Your task to perform on an android device: choose inbox layout in the gmail app Image 0: 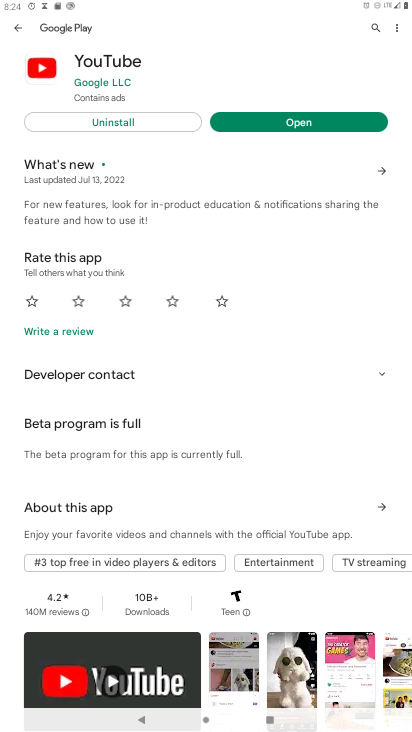
Step 0: press home button
Your task to perform on an android device: choose inbox layout in the gmail app Image 1: 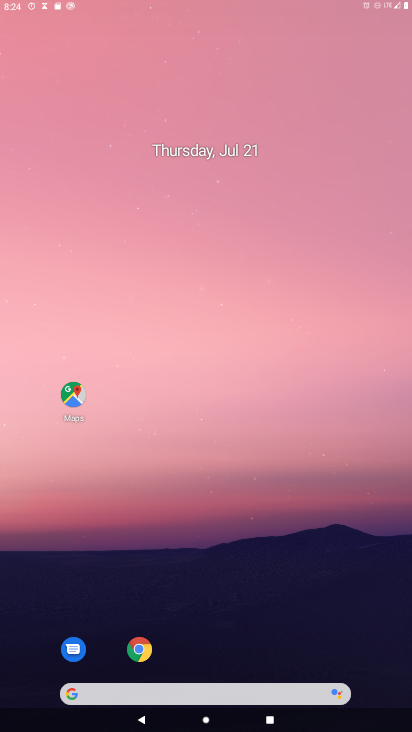
Step 1: drag from (399, 677) to (211, 53)
Your task to perform on an android device: choose inbox layout in the gmail app Image 2: 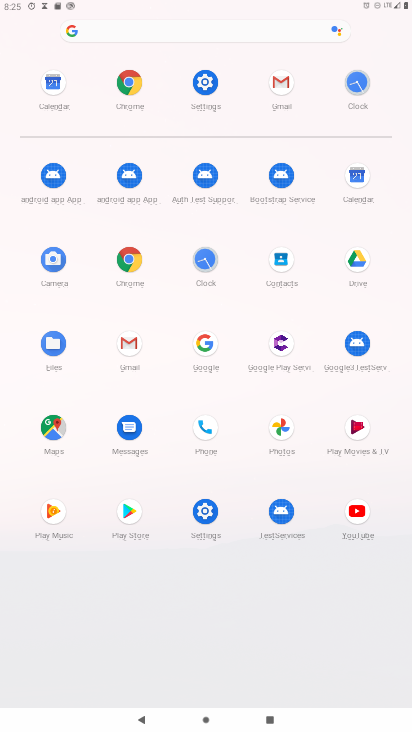
Step 2: click (128, 347)
Your task to perform on an android device: choose inbox layout in the gmail app Image 3: 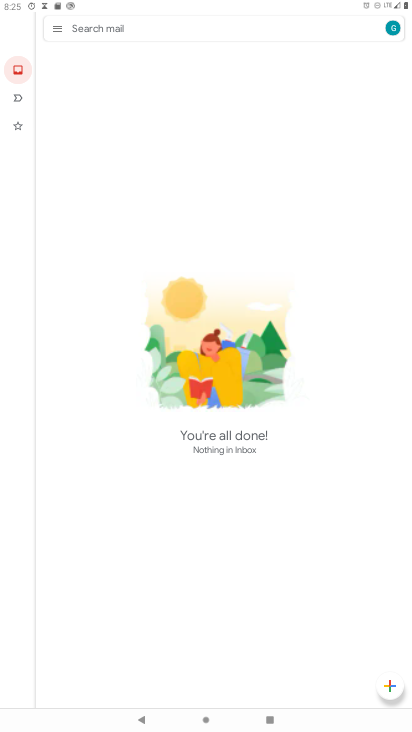
Step 3: task complete